Your task to perform on an android device: Search for Mexican restaurants on Maps Image 0: 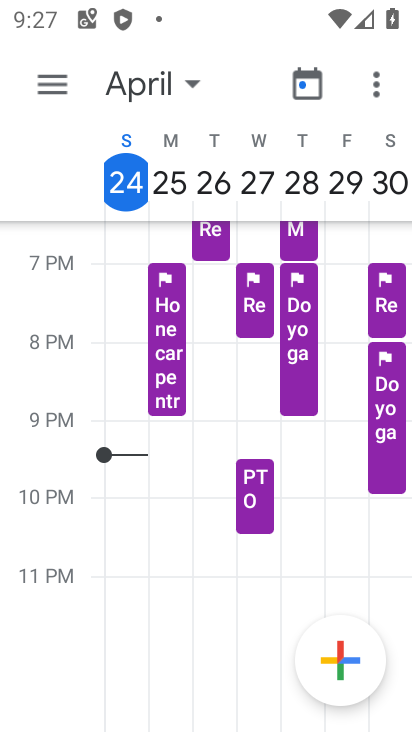
Step 0: drag from (205, 664) to (205, 171)
Your task to perform on an android device: Search for Mexican restaurants on Maps Image 1: 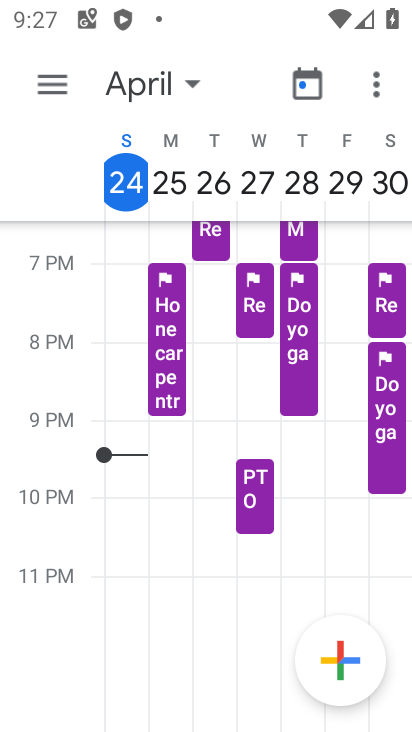
Step 1: press home button
Your task to perform on an android device: Search for Mexican restaurants on Maps Image 2: 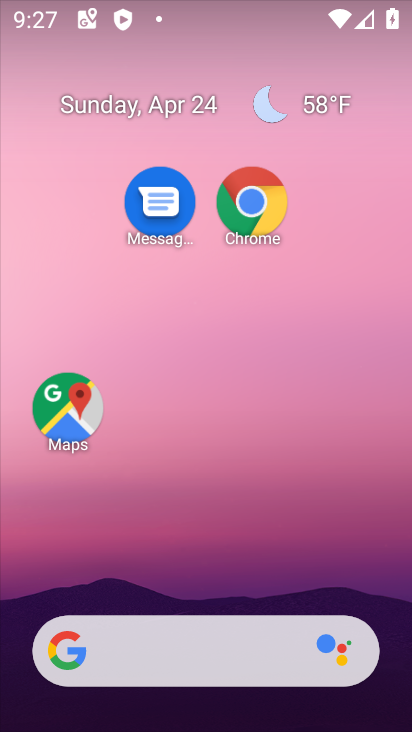
Step 2: drag from (213, 565) to (213, 82)
Your task to perform on an android device: Search for Mexican restaurants on Maps Image 3: 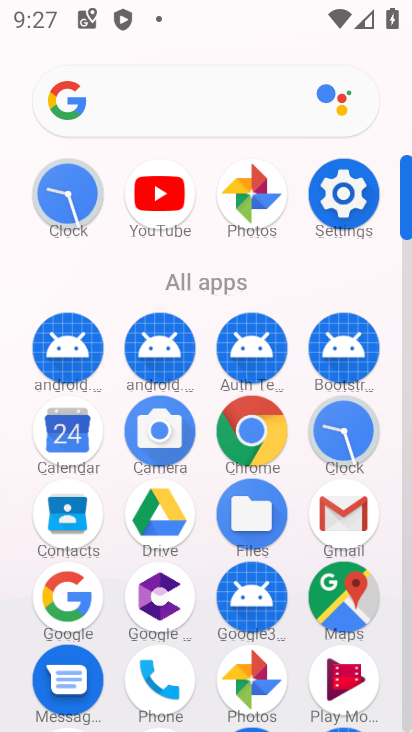
Step 3: click (338, 598)
Your task to perform on an android device: Search for Mexican restaurants on Maps Image 4: 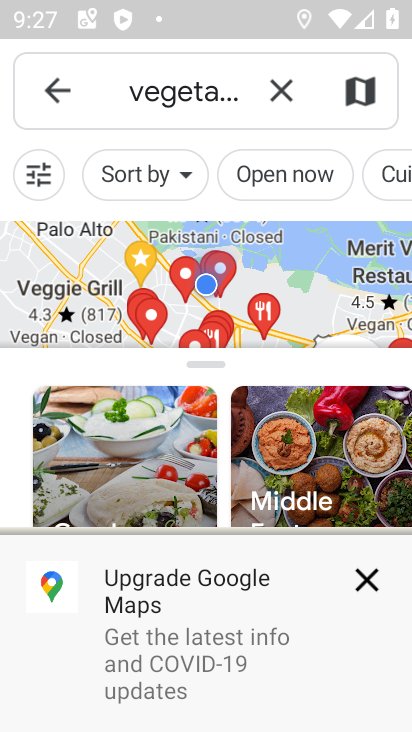
Step 4: click (282, 87)
Your task to perform on an android device: Search for Mexican restaurants on Maps Image 5: 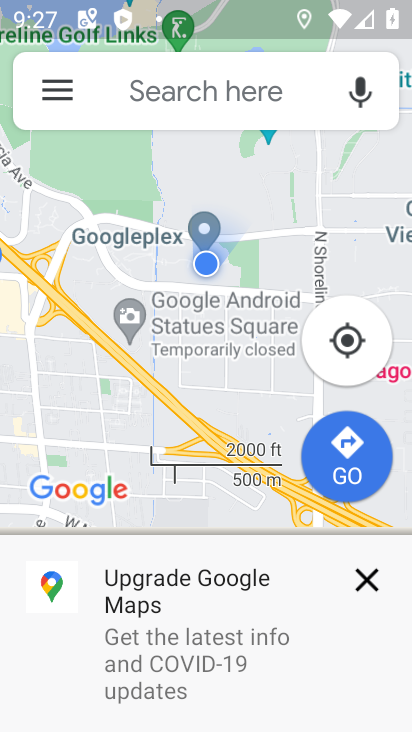
Step 5: click (204, 94)
Your task to perform on an android device: Search for Mexican restaurants on Maps Image 6: 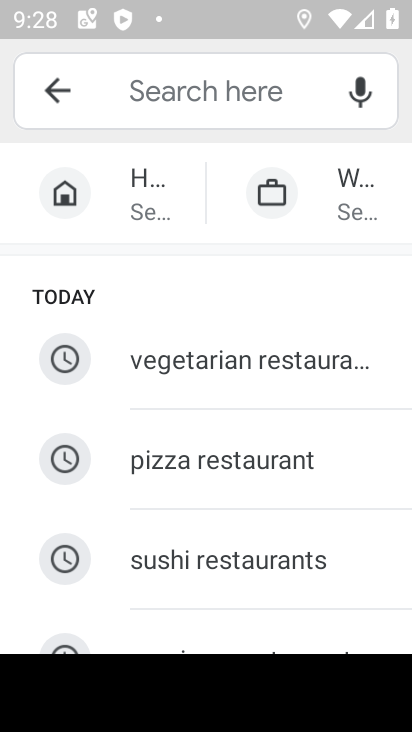
Step 6: type "Mexican restaurants"
Your task to perform on an android device: Search for Mexican restaurants on Maps Image 7: 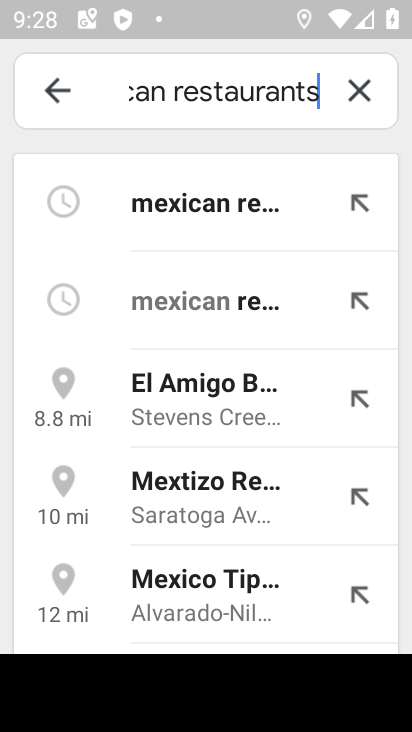
Step 7: click (197, 205)
Your task to perform on an android device: Search for Mexican restaurants on Maps Image 8: 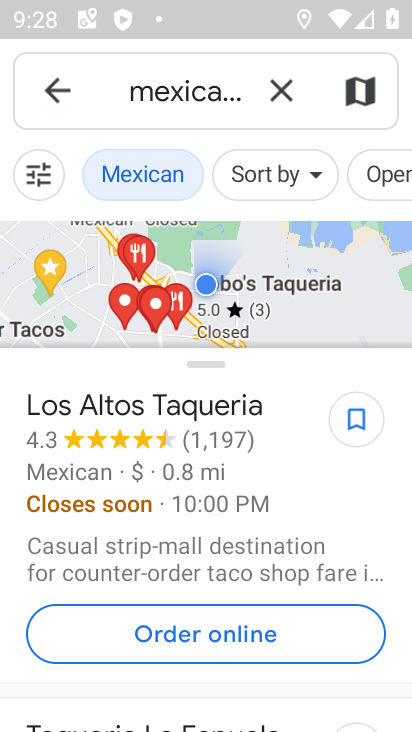
Step 8: task complete